Your task to perform on an android device: Go to Google maps Image 0: 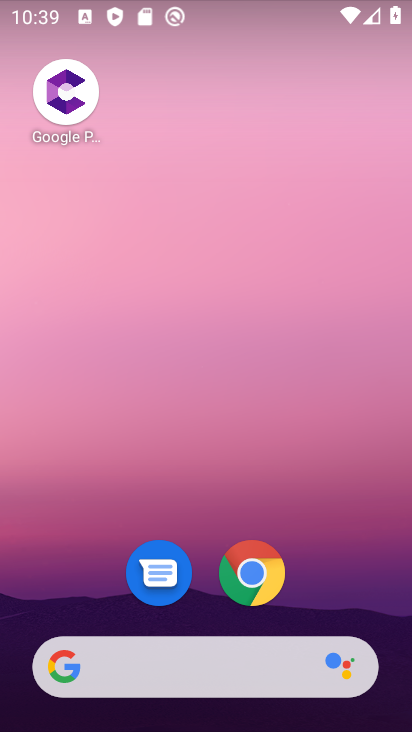
Step 0: drag from (311, 558) to (336, 124)
Your task to perform on an android device: Go to Google maps Image 1: 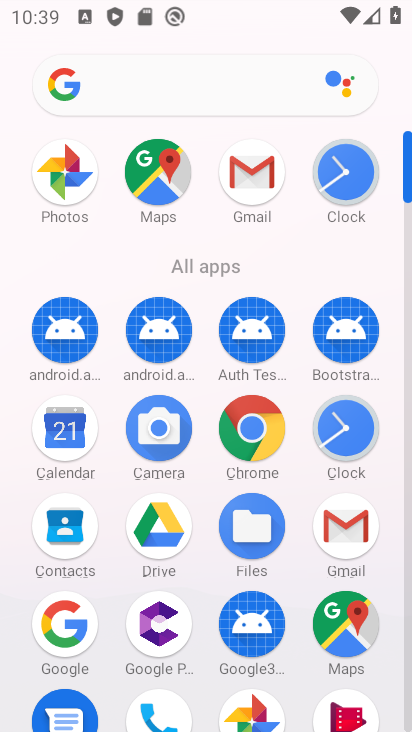
Step 1: click (167, 172)
Your task to perform on an android device: Go to Google maps Image 2: 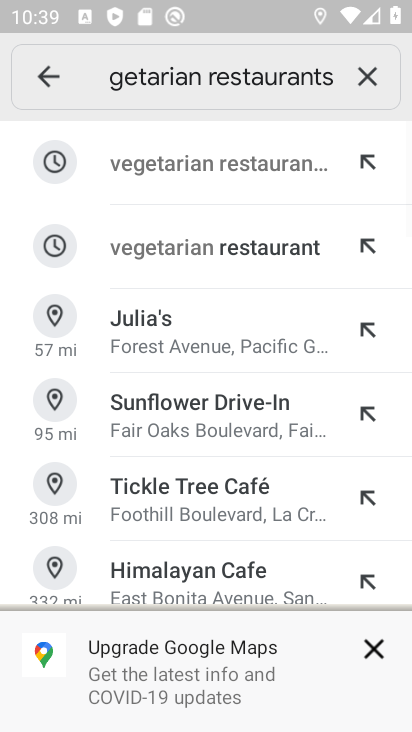
Step 2: task complete